Your task to perform on an android device: Open Maps and search for coffee Image 0: 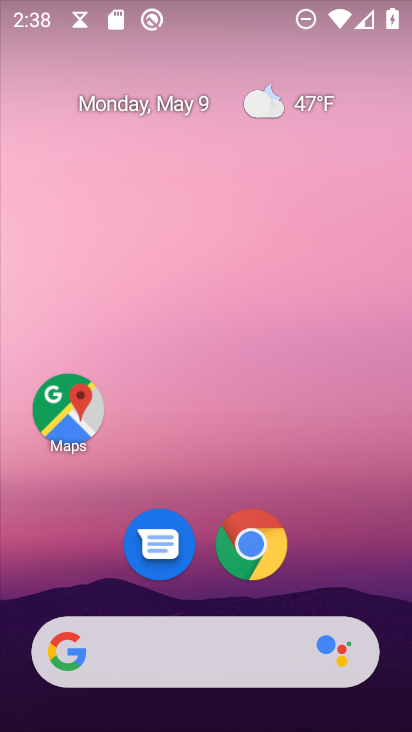
Step 0: drag from (378, 538) to (354, 193)
Your task to perform on an android device: Open Maps and search for coffee Image 1: 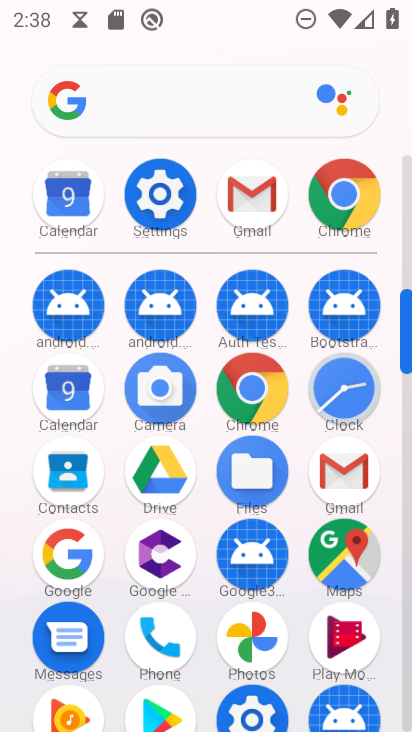
Step 1: click (345, 554)
Your task to perform on an android device: Open Maps and search for coffee Image 2: 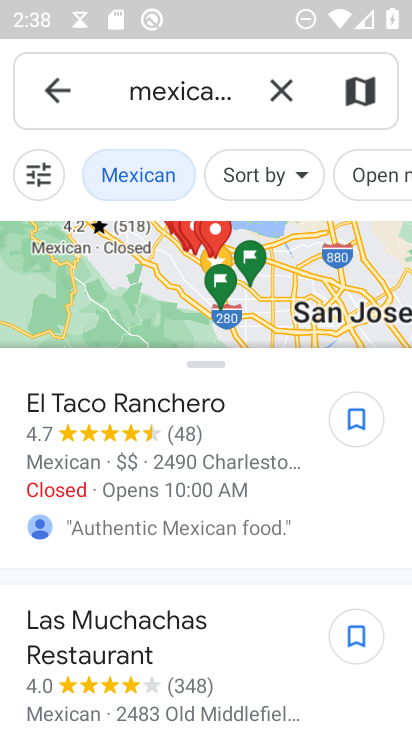
Step 2: click (283, 65)
Your task to perform on an android device: Open Maps and search for coffee Image 3: 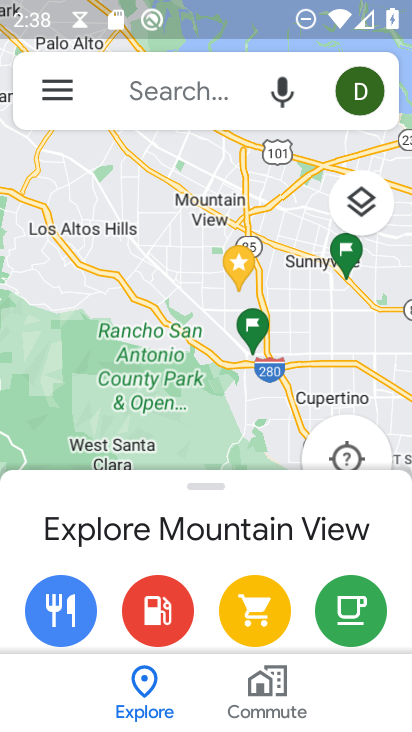
Step 3: click (156, 95)
Your task to perform on an android device: Open Maps and search for coffee Image 4: 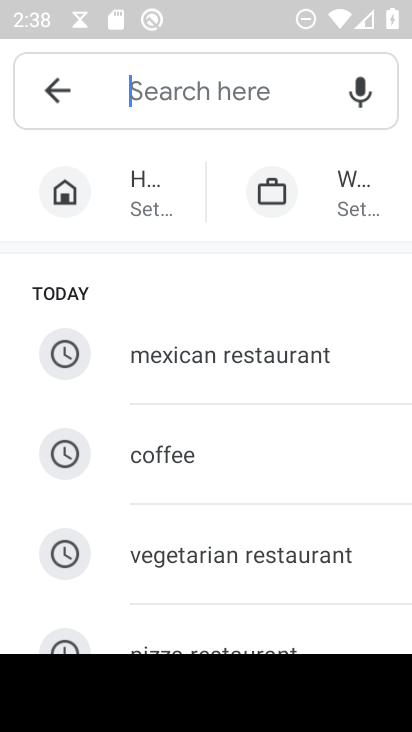
Step 4: click (185, 476)
Your task to perform on an android device: Open Maps and search for coffee Image 5: 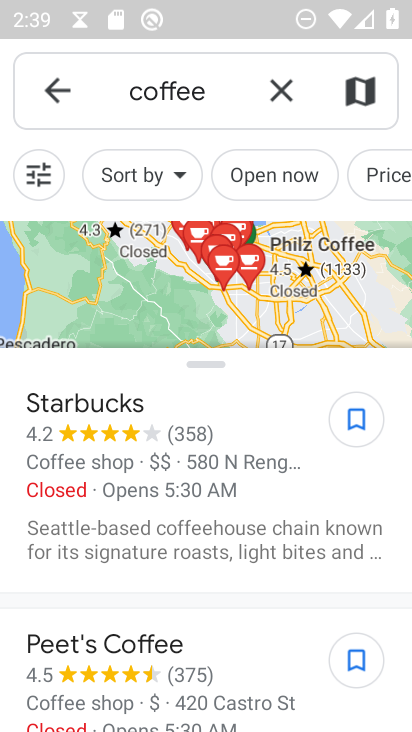
Step 5: task complete